Your task to perform on an android device: Open Google Chrome and click the shortcut for Amazon.com Image 0: 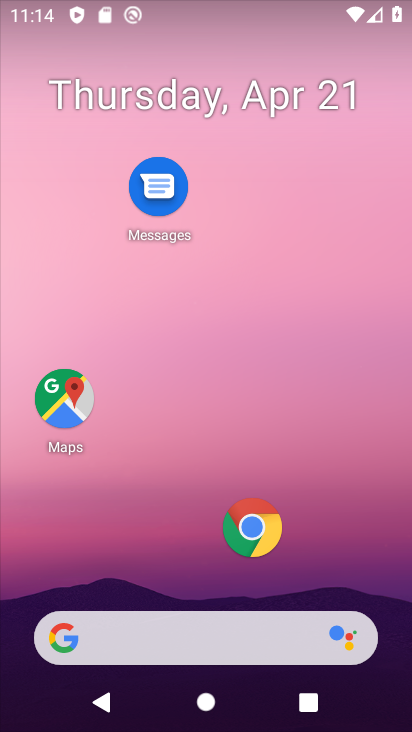
Step 0: click (241, 525)
Your task to perform on an android device: Open Google Chrome and click the shortcut for Amazon.com Image 1: 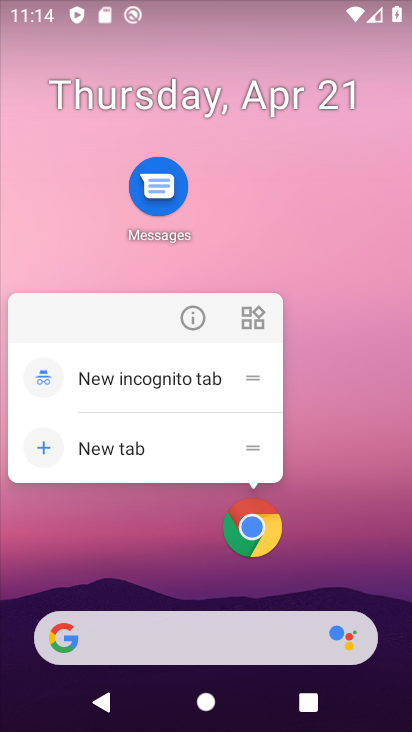
Step 1: click (247, 527)
Your task to perform on an android device: Open Google Chrome and click the shortcut for Amazon.com Image 2: 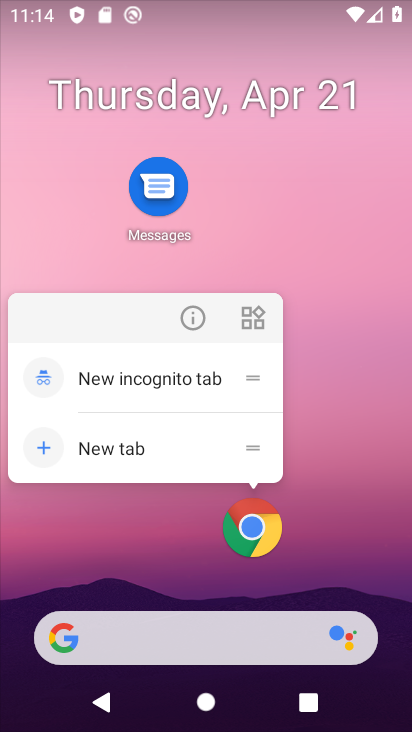
Step 2: click (260, 532)
Your task to perform on an android device: Open Google Chrome and click the shortcut for Amazon.com Image 3: 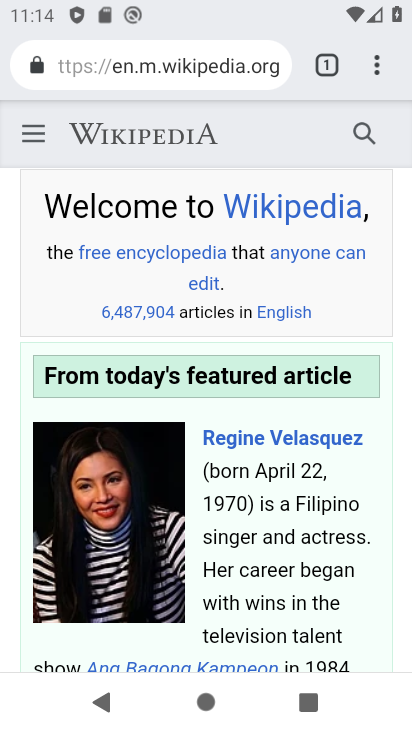
Step 3: click (321, 59)
Your task to perform on an android device: Open Google Chrome and click the shortcut for Amazon.com Image 4: 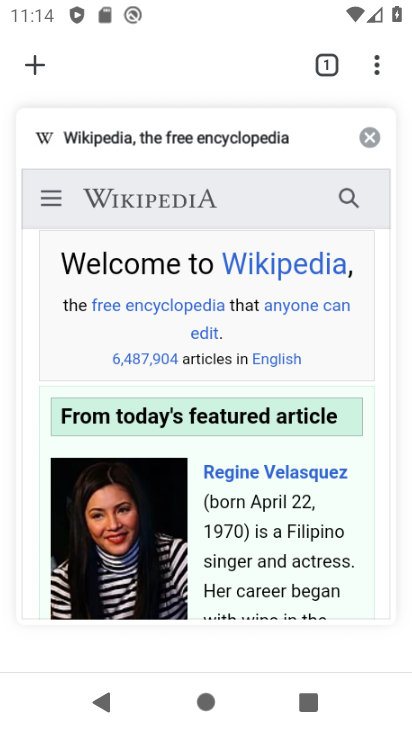
Step 4: click (37, 58)
Your task to perform on an android device: Open Google Chrome and click the shortcut for Amazon.com Image 5: 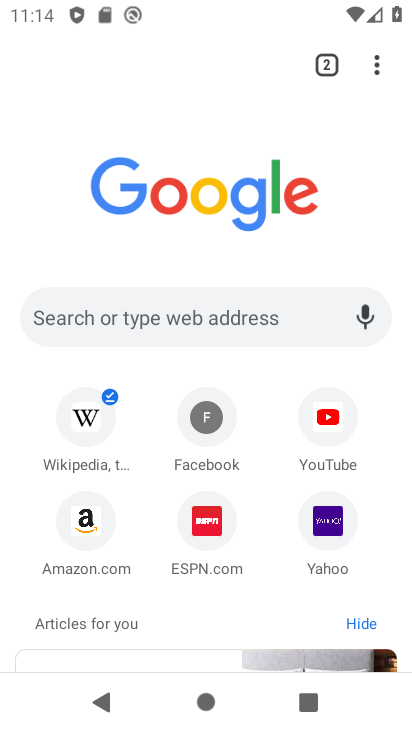
Step 5: click (82, 518)
Your task to perform on an android device: Open Google Chrome and click the shortcut for Amazon.com Image 6: 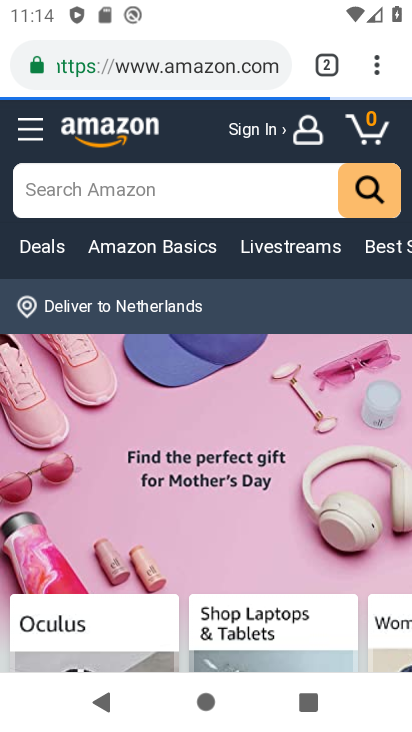
Step 6: task complete